Your task to perform on an android device: Open Google Chrome Image 0: 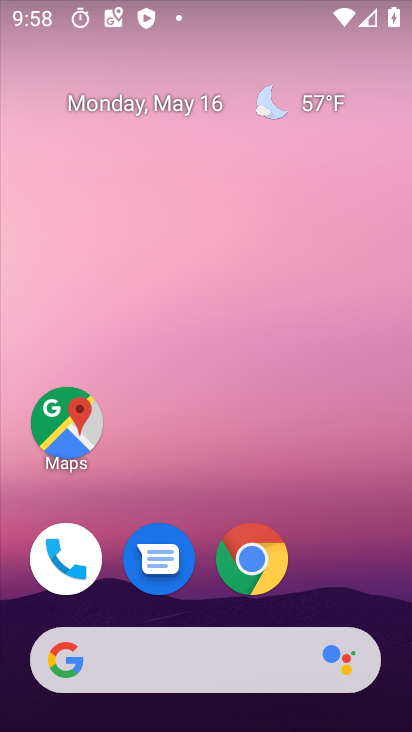
Step 0: click (254, 559)
Your task to perform on an android device: Open Google Chrome Image 1: 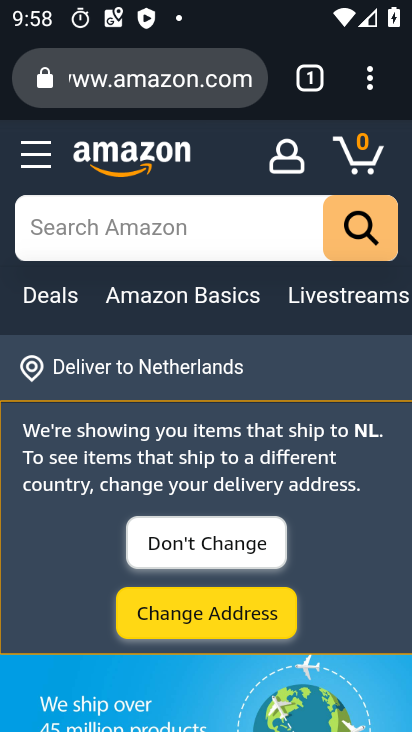
Step 1: task complete